Your task to perform on an android device: turn off location Image 0: 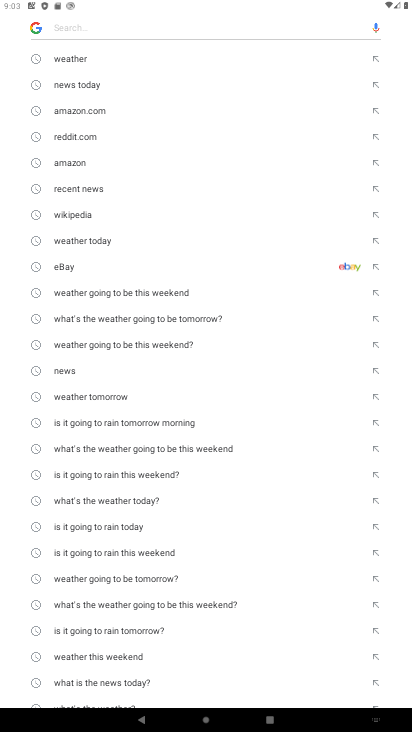
Step 0: press home button
Your task to perform on an android device: turn off location Image 1: 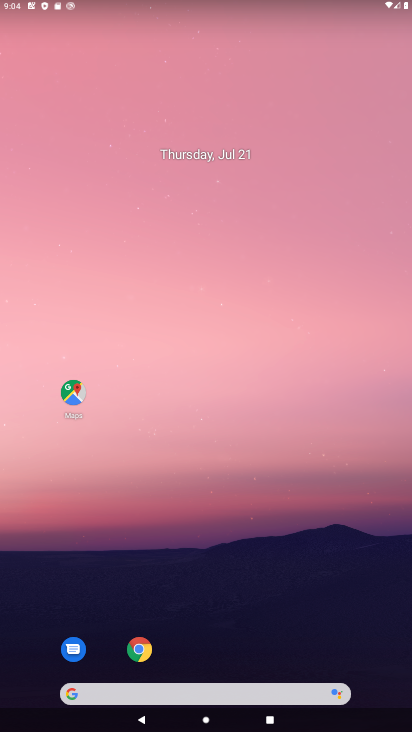
Step 1: drag from (230, 649) to (211, 195)
Your task to perform on an android device: turn off location Image 2: 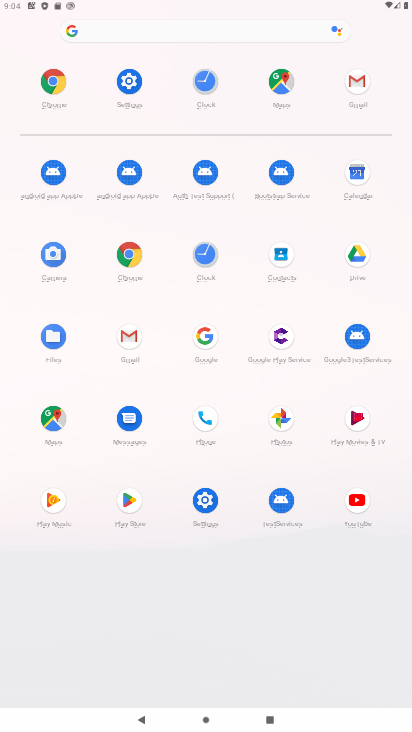
Step 2: click (205, 510)
Your task to perform on an android device: turn off location Image 3: 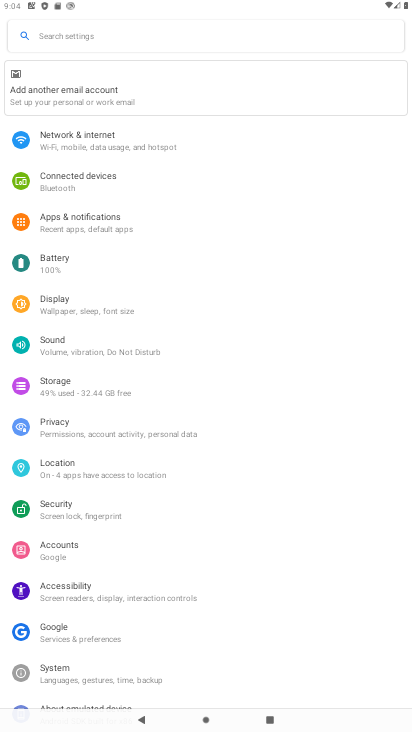
Step 3: click (91, 468)
Your task to perform on an android device: turn off location Image 4: 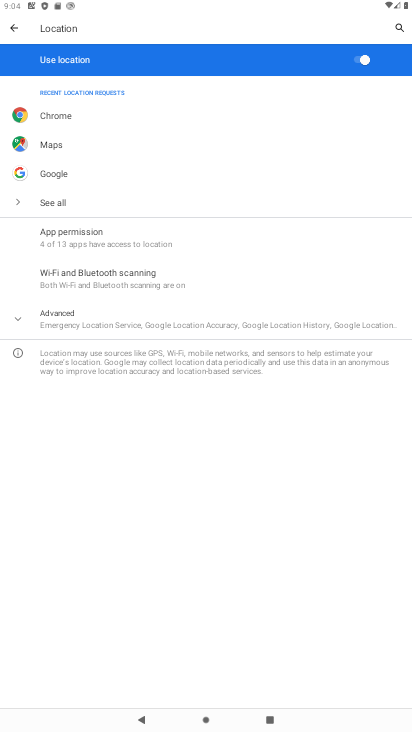
Step 4: click (343, 67)
Your task to perform on an android device: turn off location Image 5: 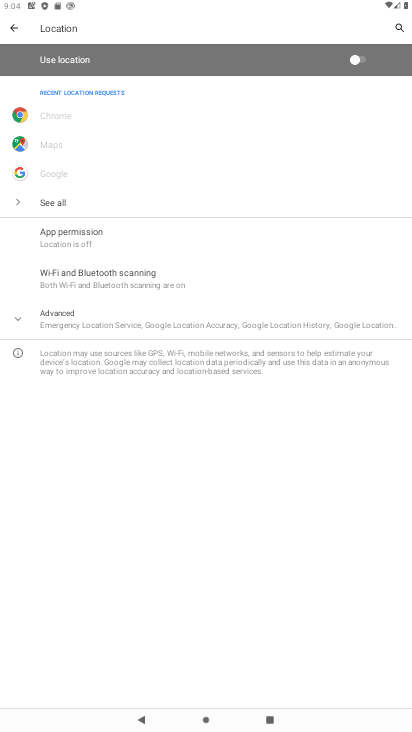
Step 5: task complete